Your task to perform on an android device: Turn off the flashlight Image 0: 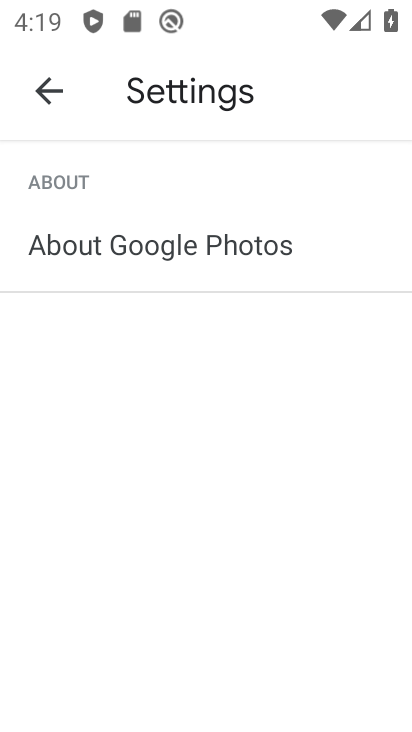
Step 0: click (30, 80)
Your task to perform on an android device: Turn off the flashlight Image 1: 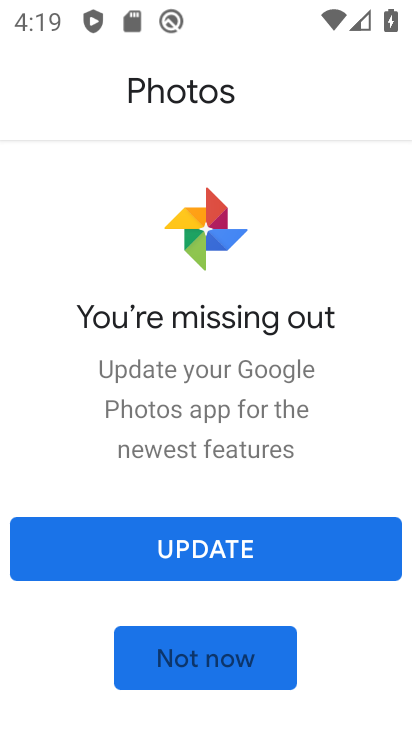
Step 1: press home button
Your task to perform on an android device: Turn off the flashlight Image 2: 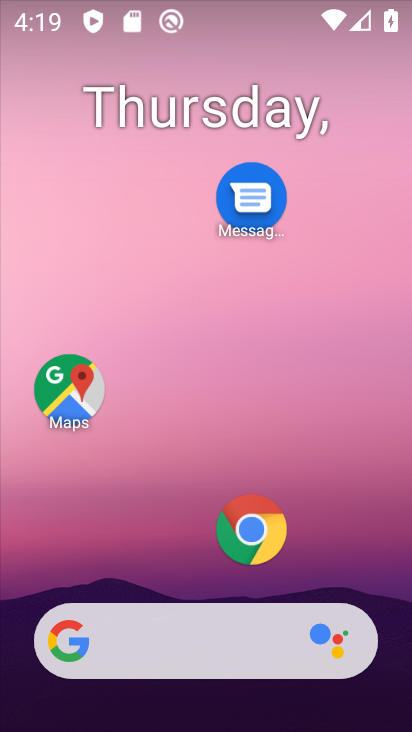
Step 2: drag from (226, 485) to (291, 61)
Your task to perform on an android device: Turn off the flashlight Image 3: 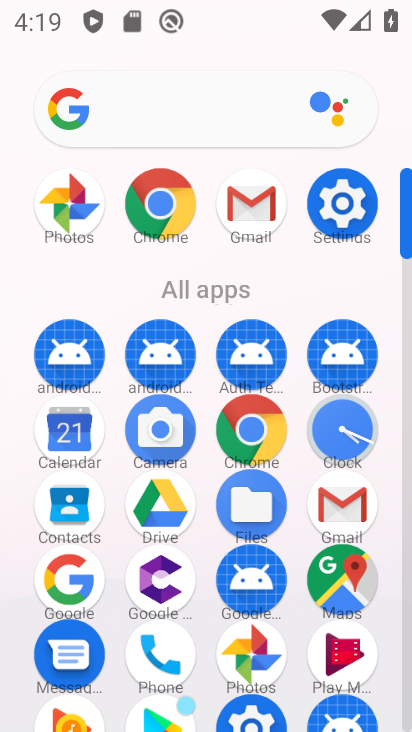
Step 3: click (338, 182)
Your task to perform on an android device: Turn off the flashlight Image 4: 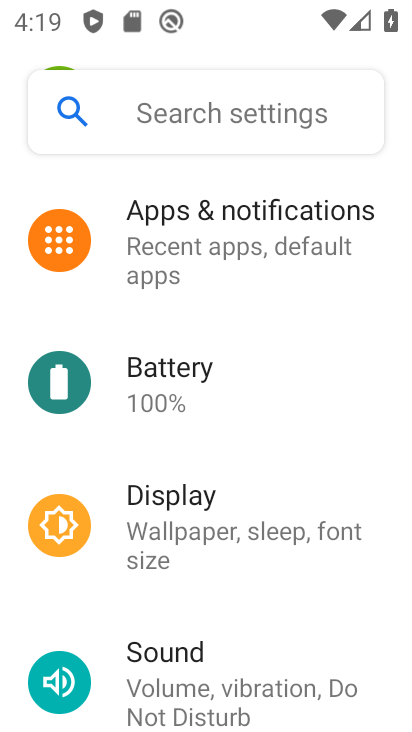
Step 4: click (242, 95)
Your task to perform on an android device: Turn off the flashlight Image 5: 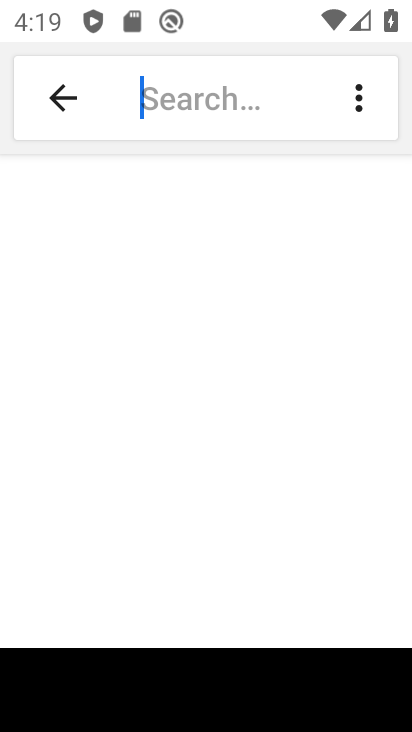
Step 5: type "flashlight"
Your task to perform on an android device: Turn off the flashlight Image 6: 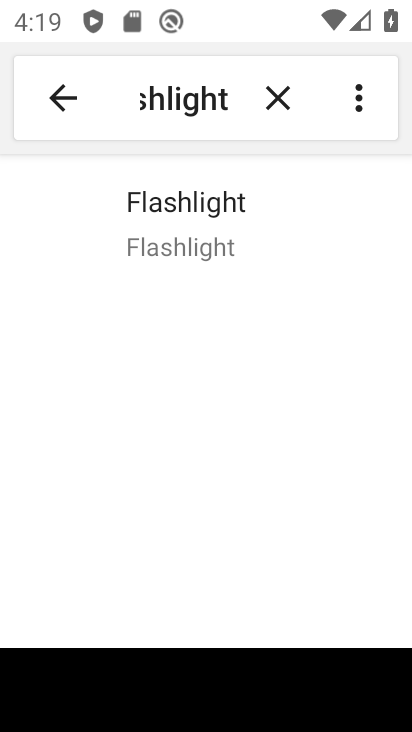
Step 6: click (215, 213)
Your task to perform on an android device: Turn off the flashlight Image 7: 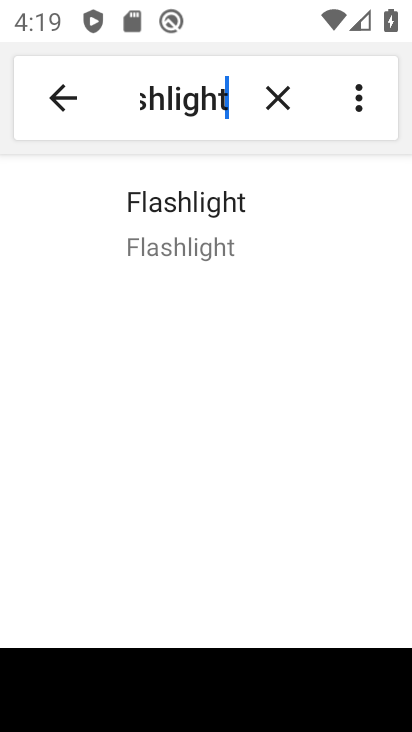
Step 7: task complete